Your task to perform on an android device: find which apps use the phone's location Image 0: 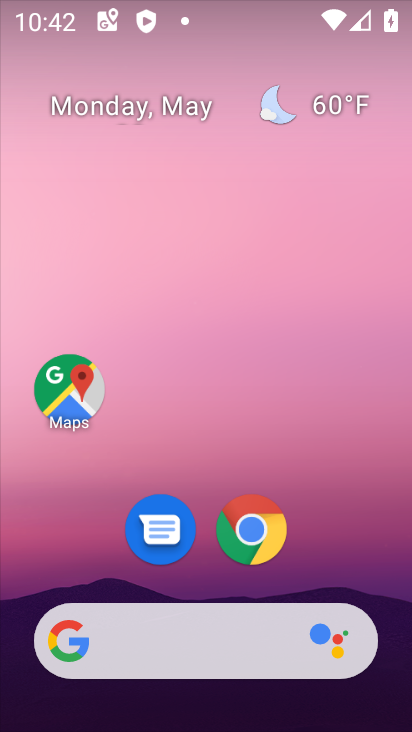
Step 0: drag from (321, 479) to (240, 86)
Your task to perform on an android device: find which apps use the phone's location Image 1: 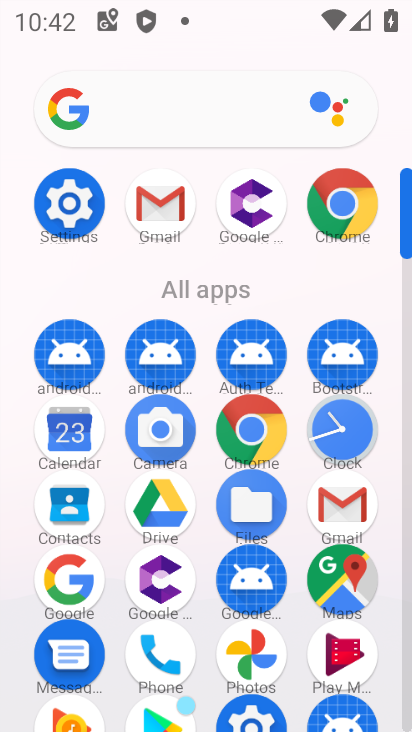
Step 1: click (70, 205)
Your task to perform on an android device: find which apps use the phone's location Image 2: 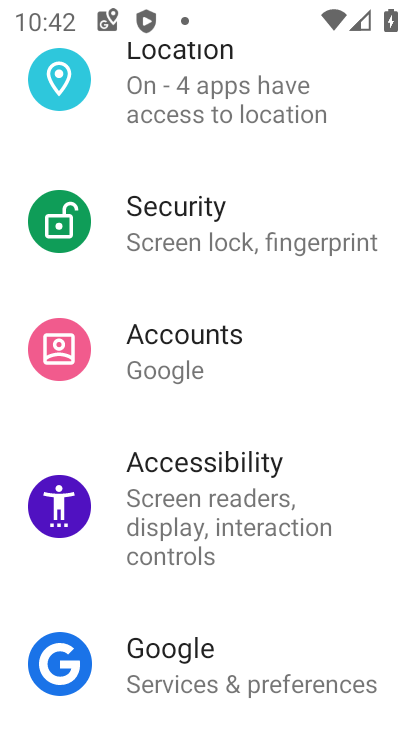
Step 2: click (169, 62)
Your task to perform on an android device: find which apps use the phone's location Image 3: 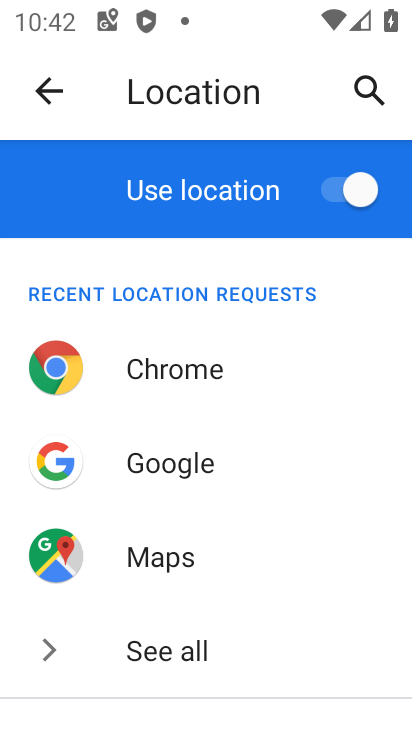
Step 3: click (140, 633)
Your task to perform on an android device: find which apps use the phone's location Image 4: 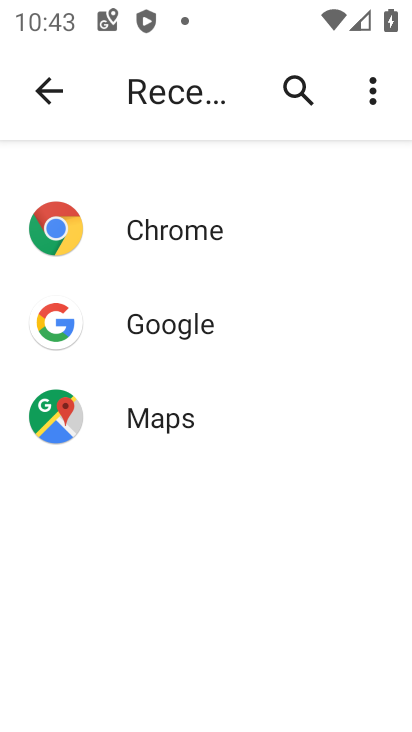
Step 4: task complete